Your task to perform on an android device: change the clock display to analog Image 0: 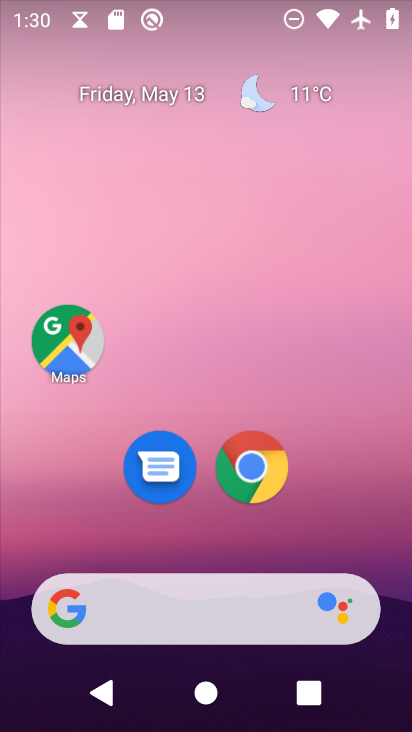
Step 0: drag from (313, 386) to (284, 141)
Your task to perform on an android device: change the clock display to analog Image 1: 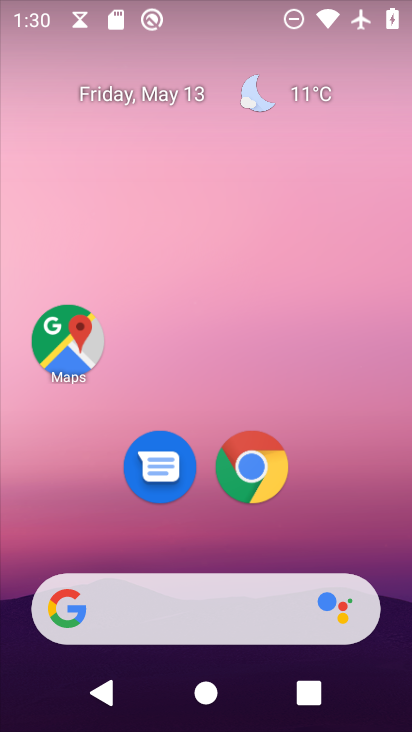
Step 1: drag from (291, 549) to (211, 66)
Your task to perform on an android device: change the clock display to analog Image 2: 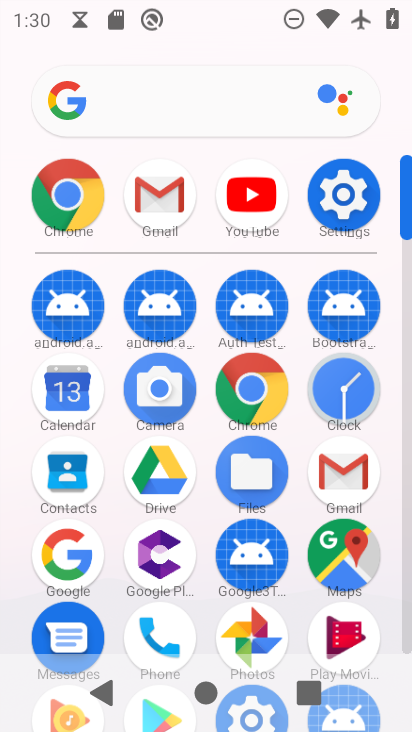
Step 2: click (349, 394)
Your task to perform on an android device: change the clock display to analog Image 3: 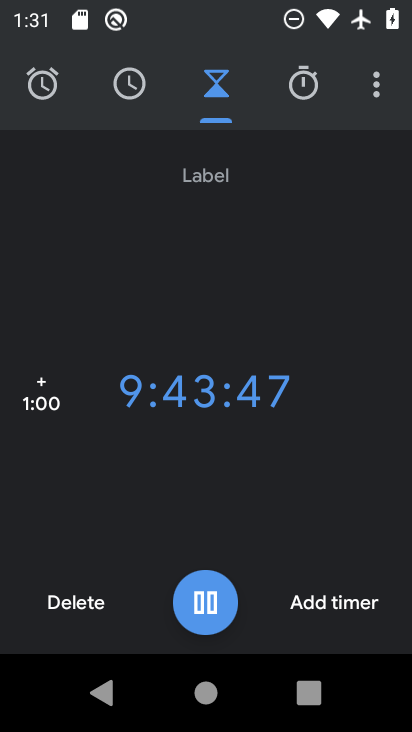
Step 3: click (369, 85)
Your task to perform on an android device: change the clock display to analog Image 4: 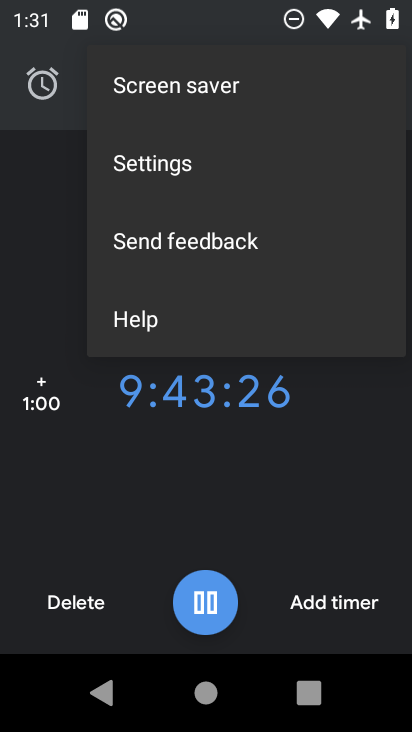
Step 4: click (176, 155)
Your task to perform on an android device: change the clock display to analog Image 5: 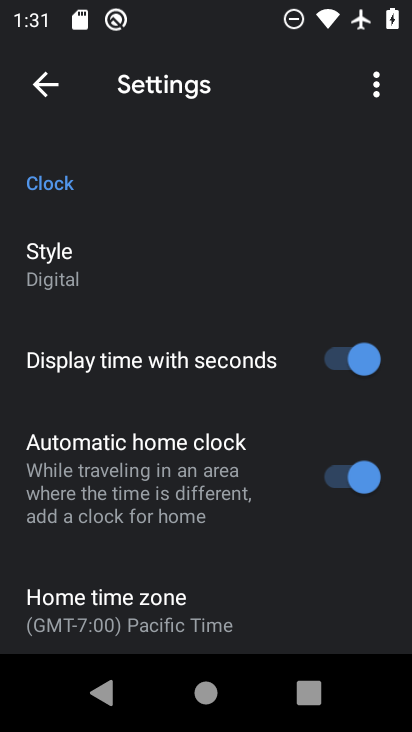
Step 5: click (144, 267)
Your task to perform on an android device: change the clock display to analog Image 6: 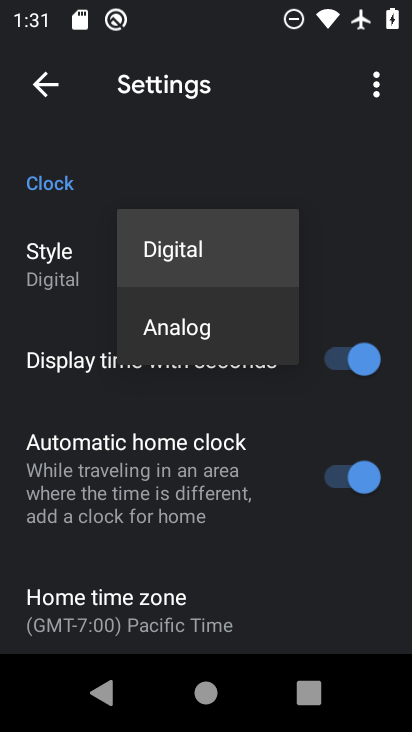
Step 6: click (215, 309)
Your task to perform on an android device: change the clock display to analog Image 7: 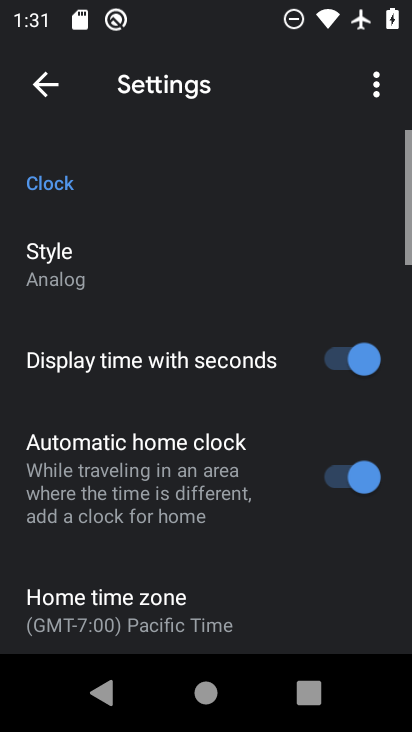
Step 7: task complete